Your task to perform on an android device: Open CNN.com Image 0: 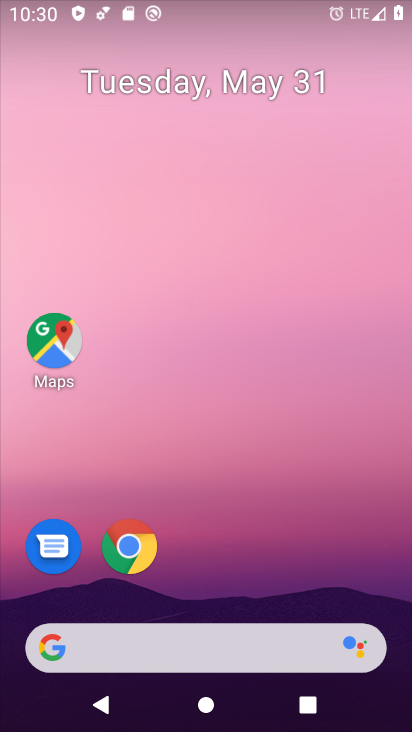
Step 0: drag from (164, 609) to (230, 1)
Your task to perform on an android device: Open CNN.com Image 1: 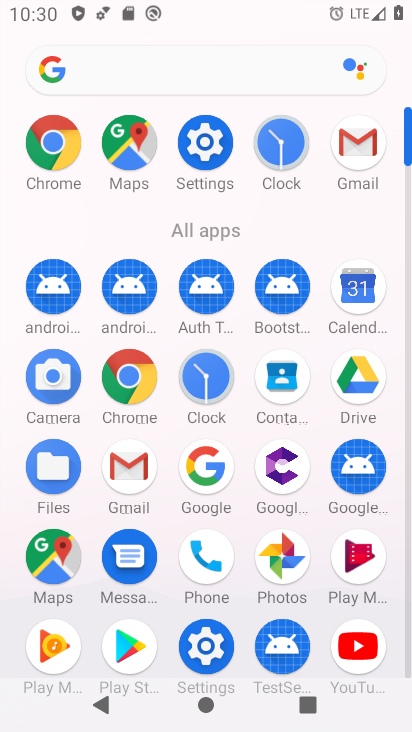
Step 1: click (119, 377)
Your task to perform on an android device: Open CNN.com Image 2: 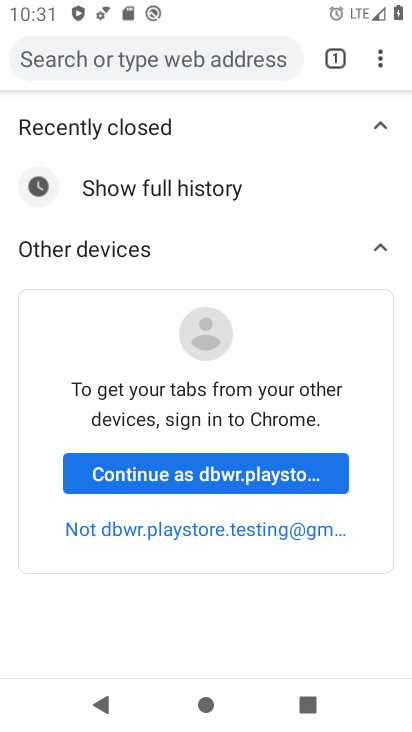
Step 2: click (72, 35)
Your task to perform on an android device: Open CNN.com Image 3: 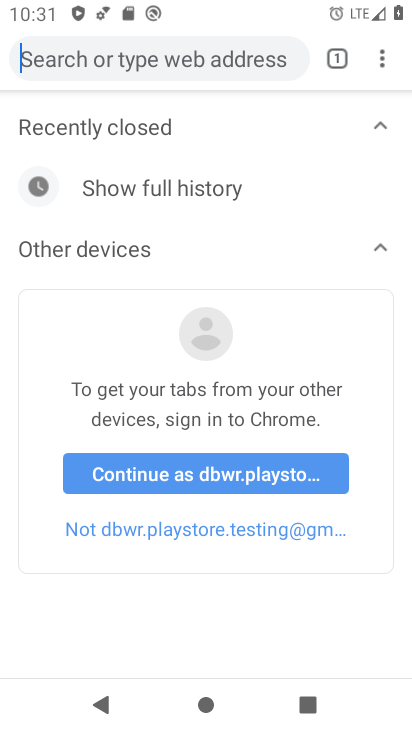
Step 3: click (75, 61)
Your task to perform on an android device: Open CNN.com Image 4: 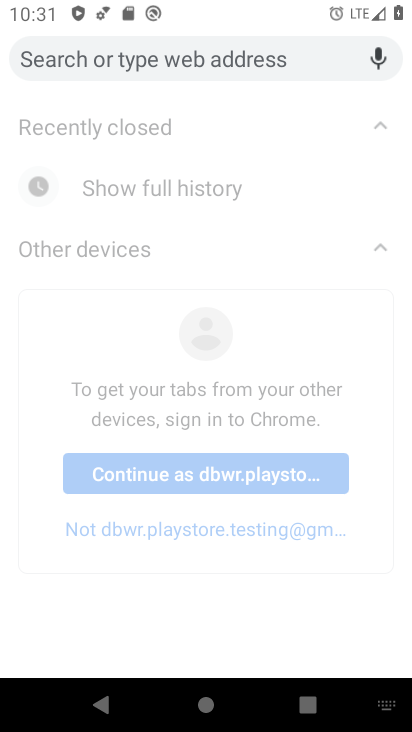
Step 4: type "cnn.com"
Your task to perform on an android device: Open CNN.com Image 5: 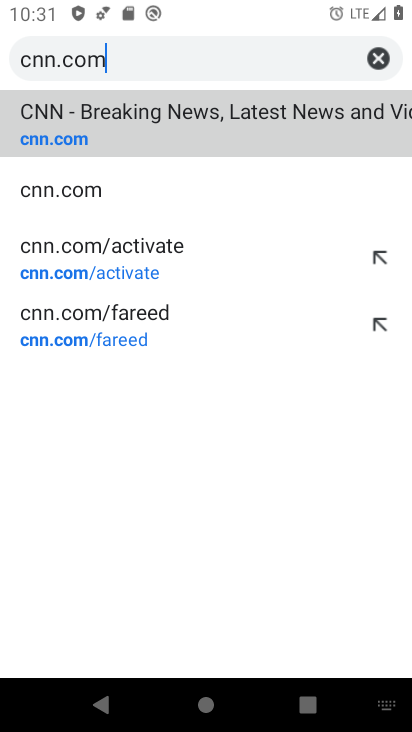
Step 5: click (300, 131)
Your task to perform on an android device: Open CNN.com Image 6: 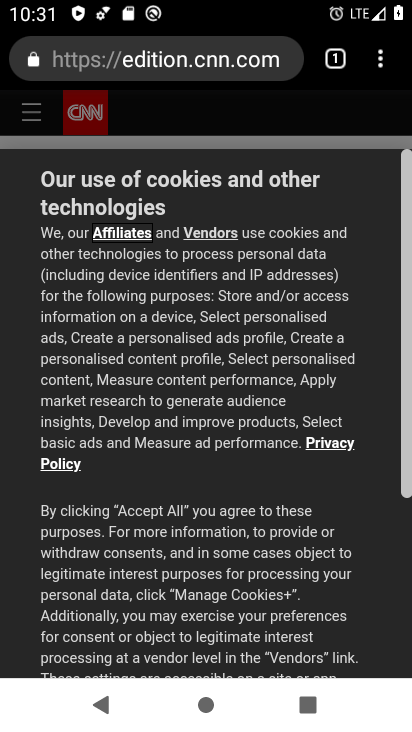
Step 6: task complete